Your task to perform on an android device: Clear all items from cart on ebay.com. Add "duracell triple a" to the cart on ebay.com Image 0: 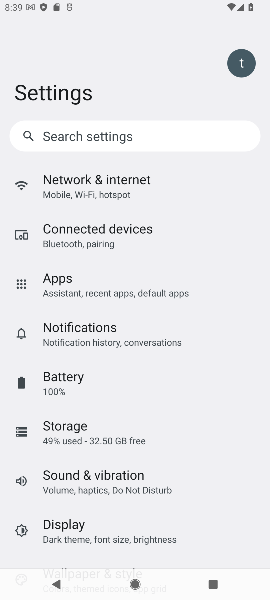
Step 0: press home button
Your task to perform on an android device: Clear all items from cart on ebay.com. Add "duracell triple a" to the cart on ebay.com Image 1: 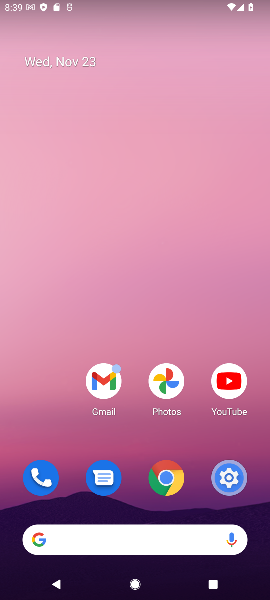
Step 1: click (139, 546)
Your task to perform on an android device: Clear all items from cart on ebay.com. Add "duracell triple a" to the cart on ebay.com Image 2: 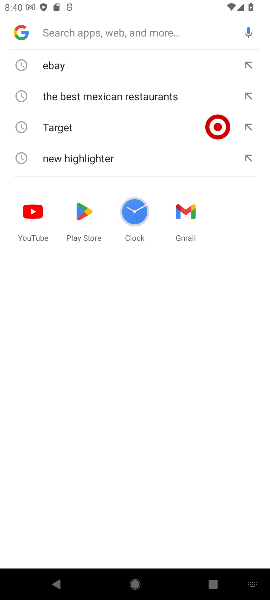
Step 2: click (118, 71)
Your task to perform on an android device: Clear all items from cart on ebay.com. Add "duracell triple a" to the cart on ebay.com Image 3: 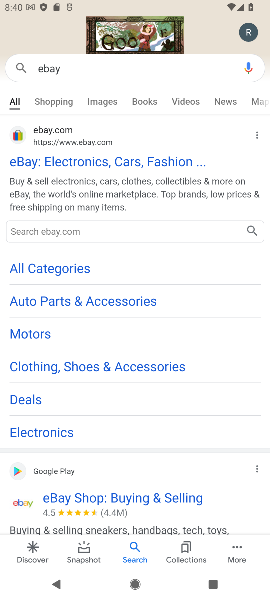
Step 3: click (99, 162)
Your task to perform on an android device: Clear all items from cart on ebay.com. Add "duracell triple a" to the cart on ebay.com Image 4: 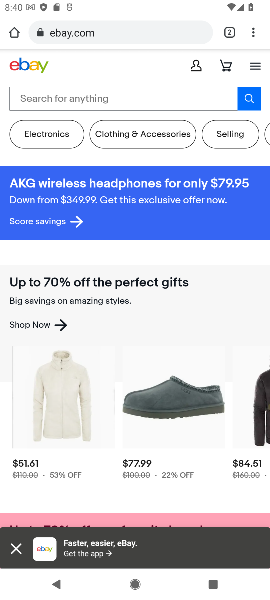
Step 4: click (137, 108)
Your task to perform on an android device: Clear all items from cart on ebay.com. Add "duracell triple a" to the cart on ebay.com Image 5: 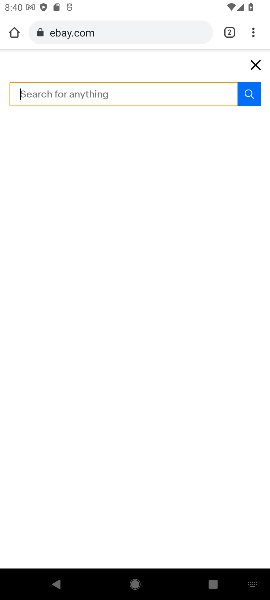
Step 5: type "duracell triple a"
Your task to perform on an android device: Clear all items from cart on ebay.com. Add "duracell triple a" to the cart on ebay.com Image 6: 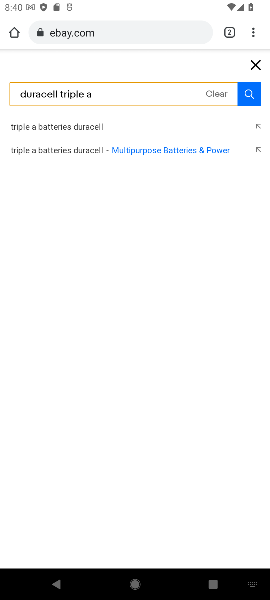
Step 6: click (248, 96)
Your task to perform on an android device: Clear all items from cart on ebay.com. Add "duracell triple a" to the cart on ebay.com Image 7: 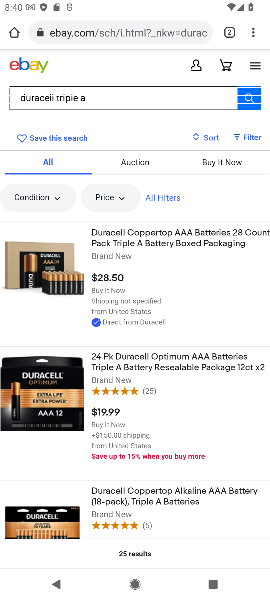
Step 7: click (175, 231)
Your task to perform on an android device: Clear all items from cart on ebay.com. Add "duracell triple a" to the cart on ebay.com Image 8: 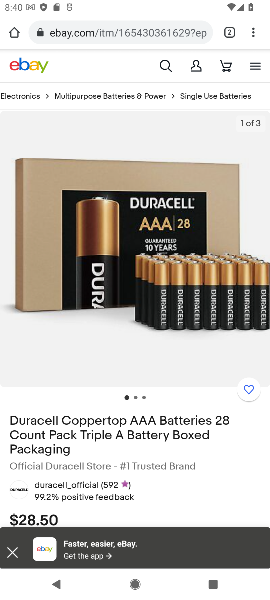
Step 8: click (12, 557)
Your task to perform on an android device: Clear all items from cart on ebay.com. Add "duracell triple a" to the cart on ebay.com Image 9: 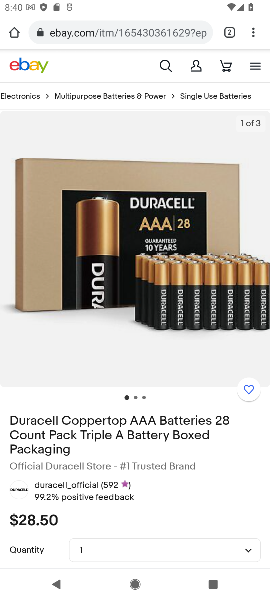
Step 9: drag from (213, 511) to (200, 358)
Your task to perform on an android device: Clear all items from cart on ebay.com. Add "duracell triple a" to the cart on ebay.com Image 10: 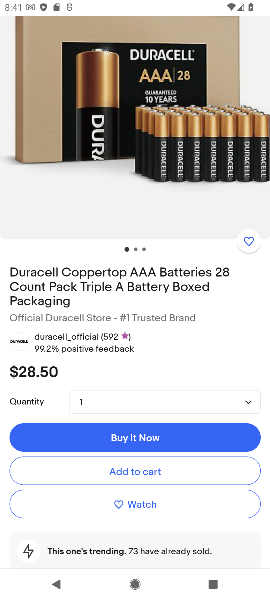
Step 10: click (142, 471)
Your task to perform on an android device: Clear all items from cart on ebay.com. Add "duracell triple a" to the cart on ebay.com Image 11: 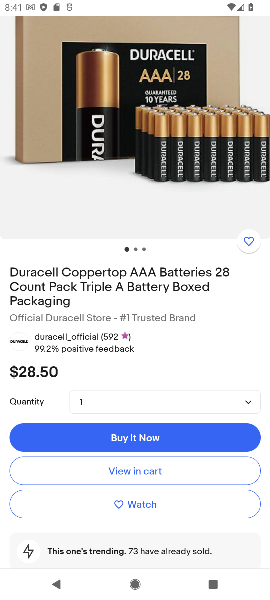
Step 11: task complete